Your task to perform on an android device: Open Google Maps and go to "Timeline" Image 0: 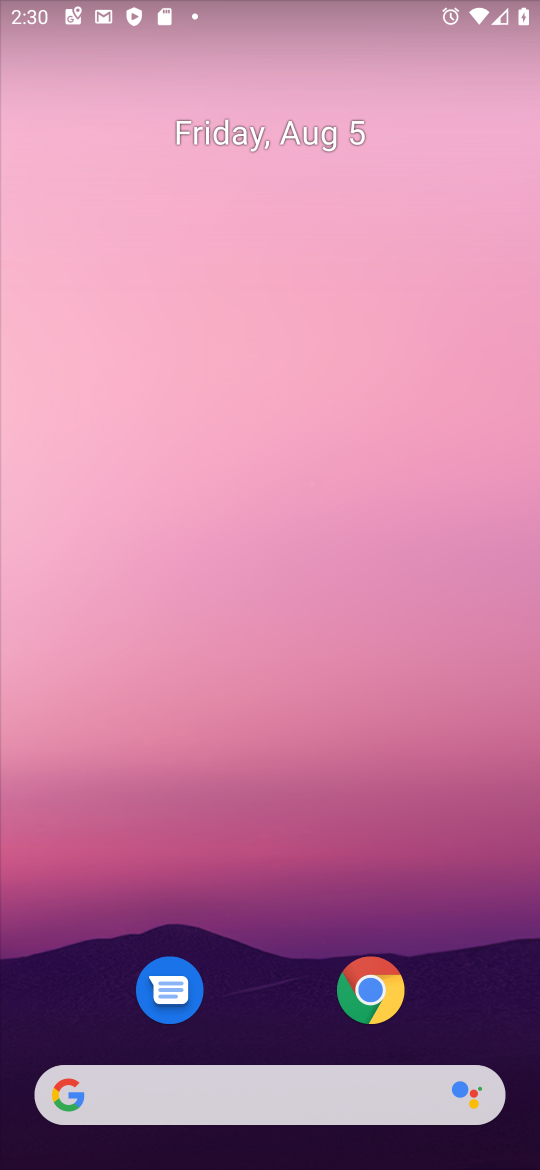
Step 0: drag from (321, 1102) to (286, 126)
Your task to perform on an android device: Open Google Maps and go to "Timeline" Image 1: 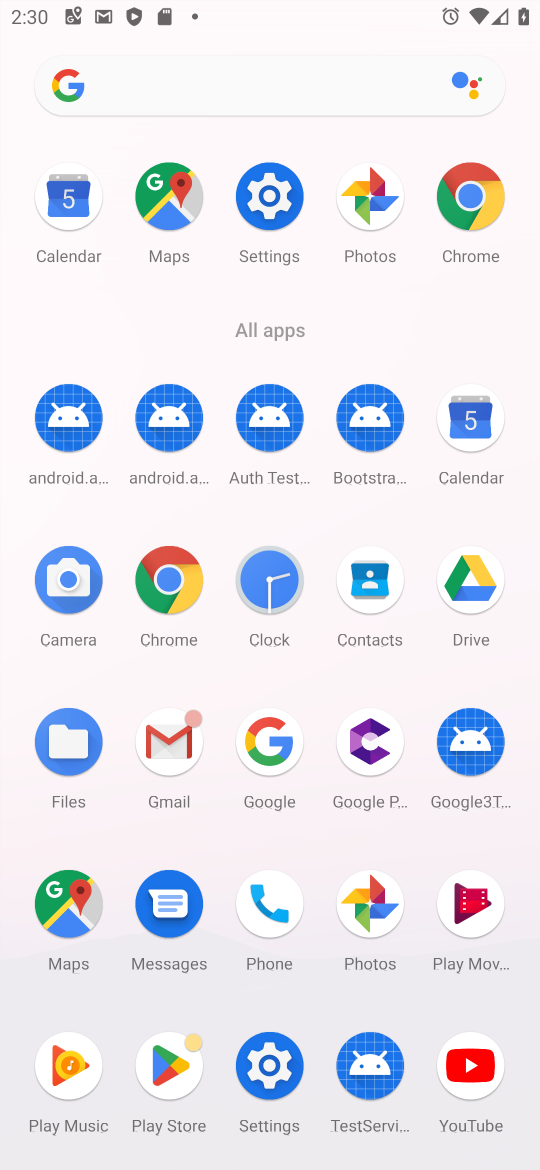
Step 1: click (56, 912)
Your task to perform on an android device: Open Google Maps and go to "Timeline" Image 2: 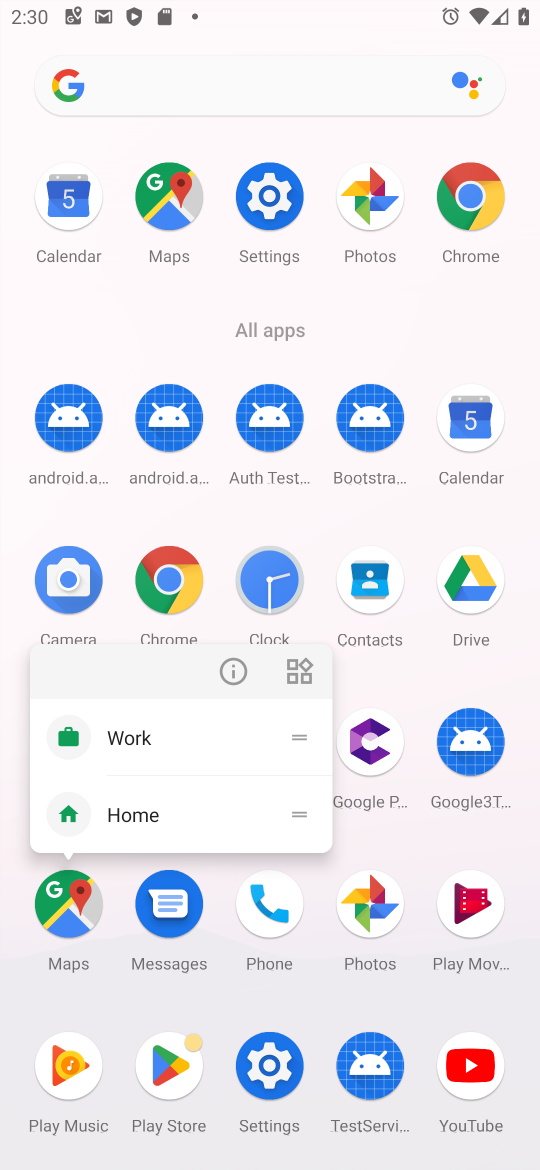
Step 2: click (55, 911)
Your task to perform on an android device: Open Google Maps and go to "Timeline" Image 3: 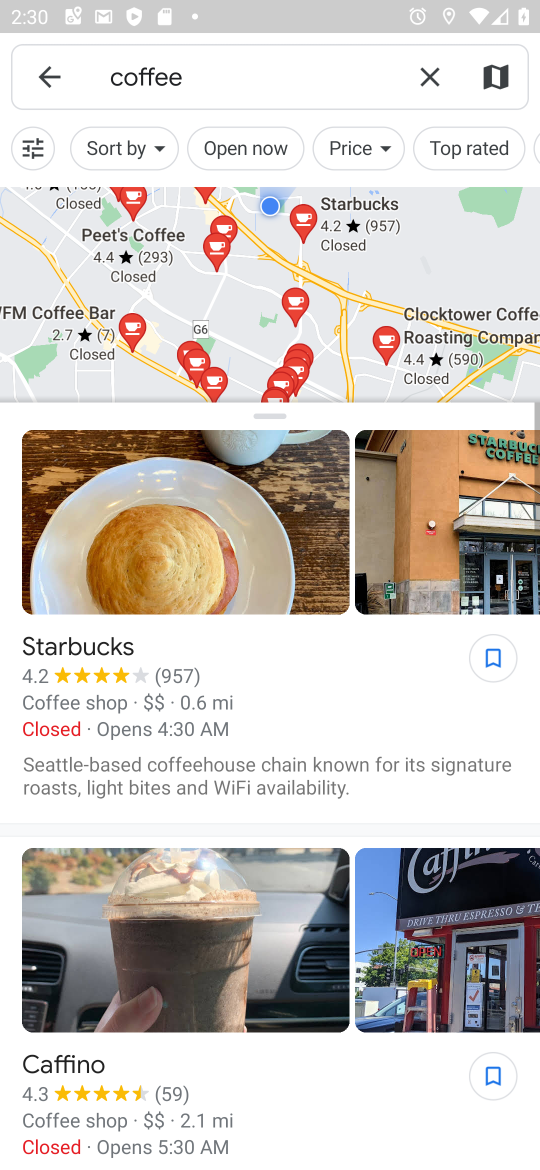
Step 3: click (100, 911)
Your task to perform on an android device: Open Google Maps and go to "Timeline" Image 4: 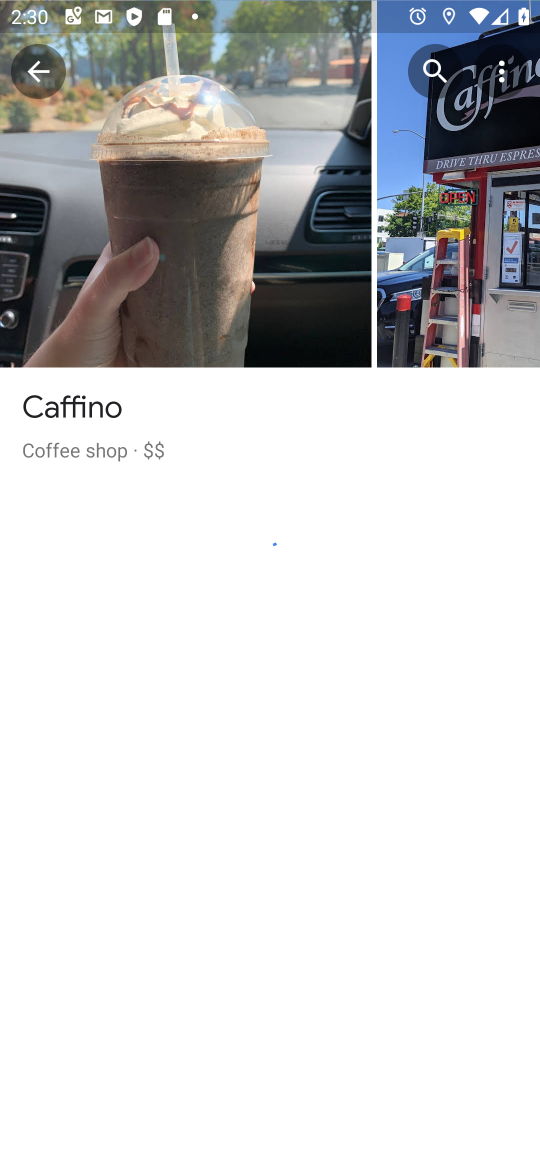
Step 4: click (26, 84)
Your task to perform on an android device: Open Google Maps and go to "Timeline" Image 5: 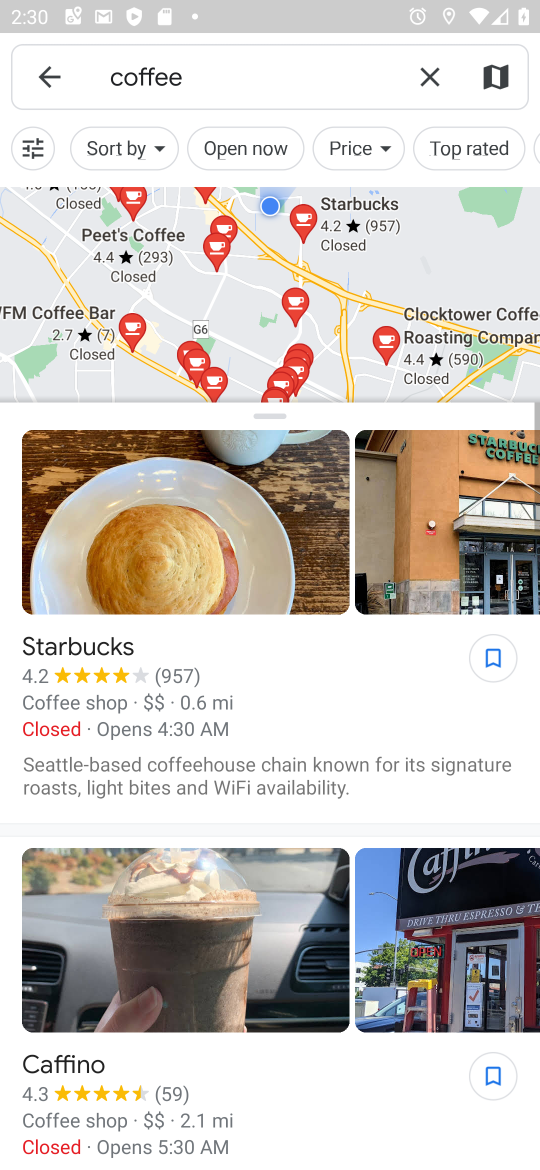
Step 5: click (31, 82)
Your task to perform on an android device: Open Google Maps and go to "Timeline" Image 6: 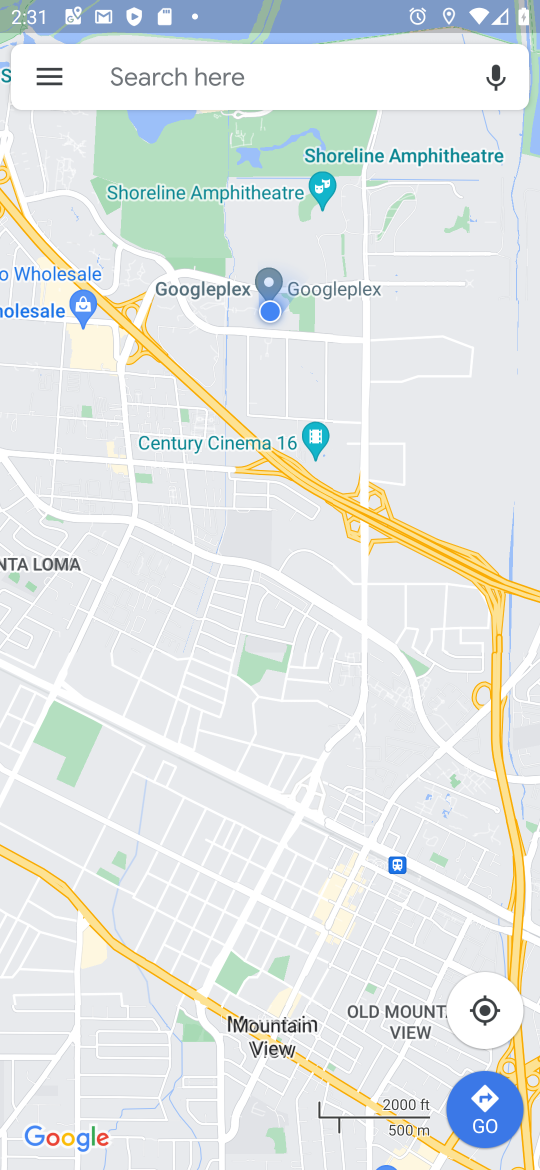
Step 6: click (48, 73)
Your task to perform on an android device: Open Google Maps and go to "Timeline" Image 7: 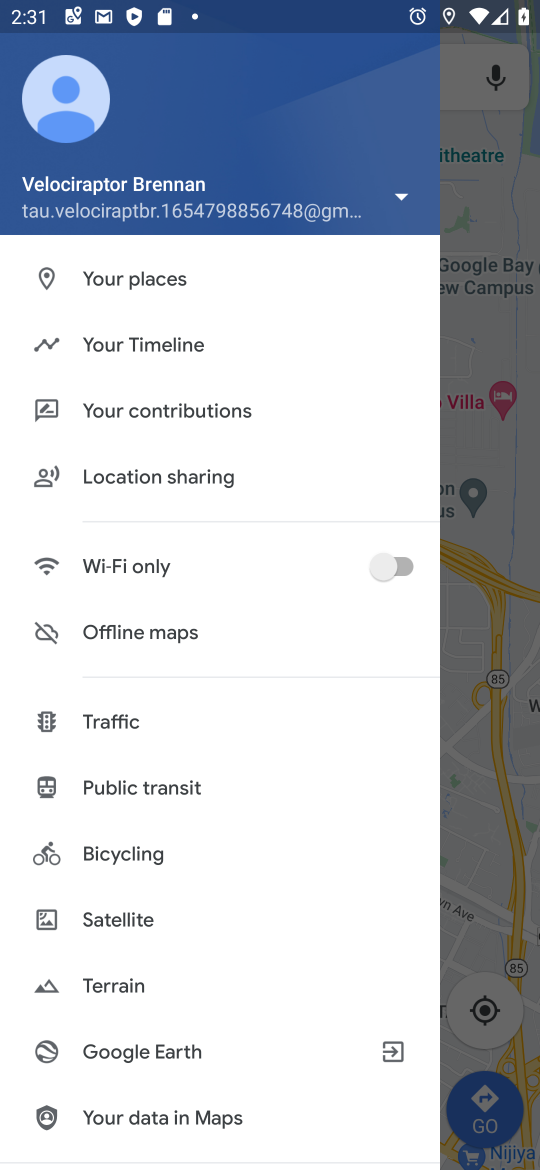
Step 7: click (163, 337)
Your task to perform on an android device: Open Google Maps and go to "Timeline" Image 8: 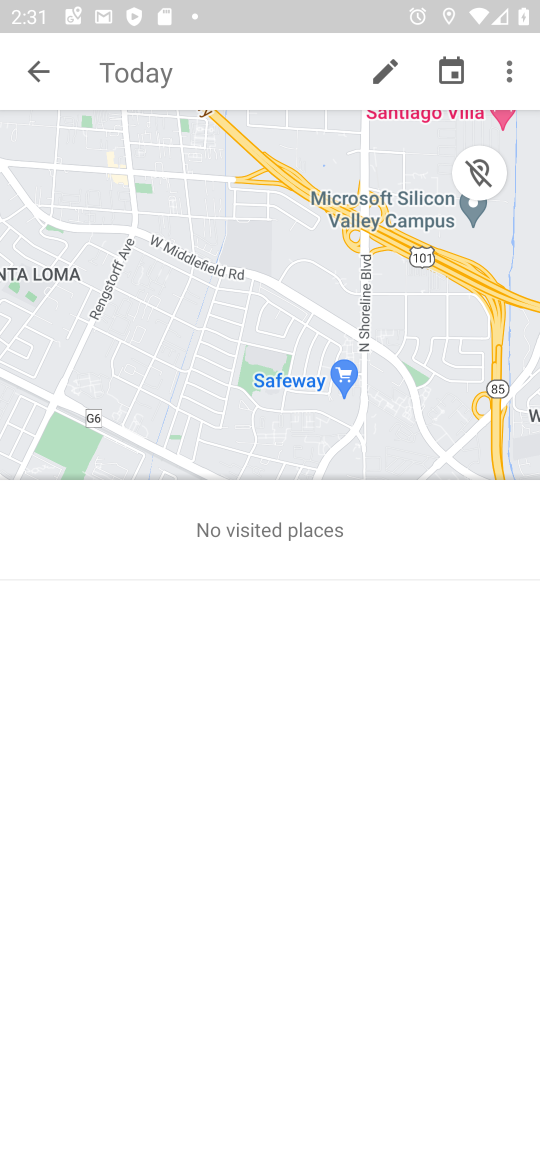
Step 8: task complete